Your task to perform on an android device: set default search engine in the chrome app Image 0: 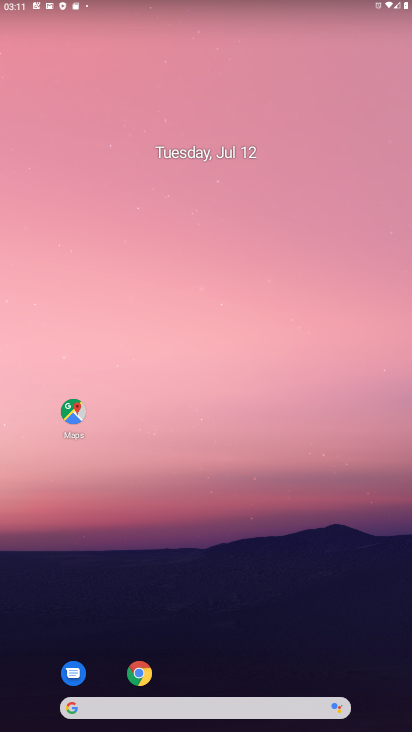
Step 0: press home button
Your task to perform on an android device: set default search engine in the chrome app Image 1: 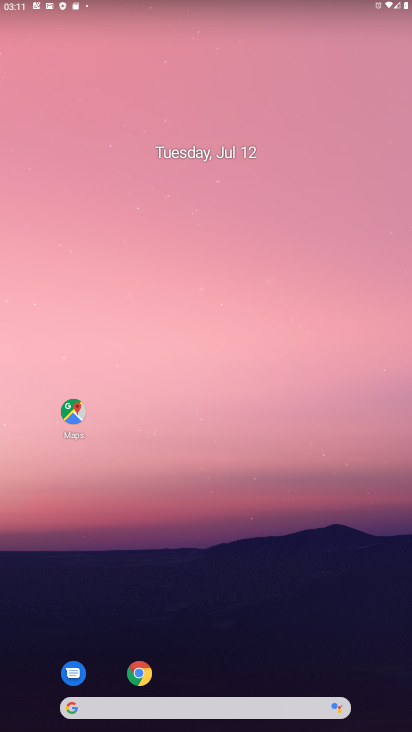
Step 1: drag from (266, 635) to (287, 138)
Your task to perform on an android device: set default search engine in the chrome app Image 2: 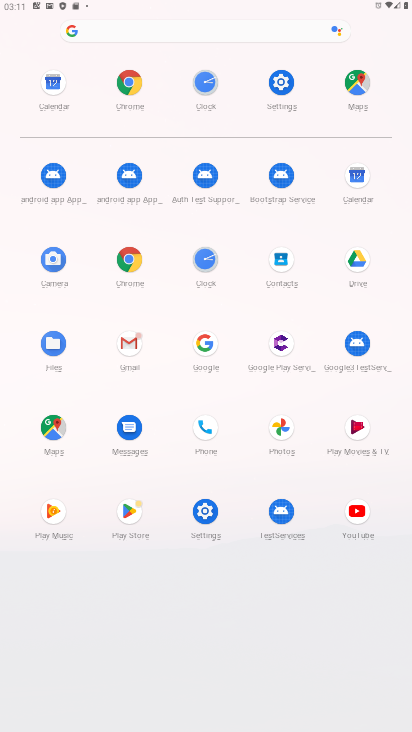
Step 2: click (124, 265)
Your task to perform on an android device: set default search engine in the chrome app Image 3: 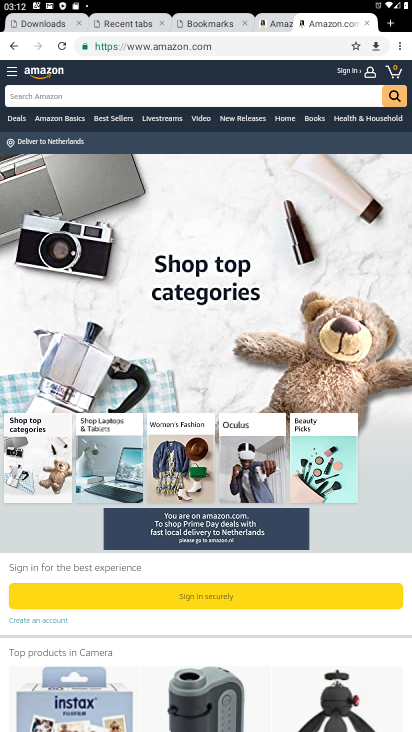
Step 3: drag from (394, 48) to (317, 310)
Your task to perform on an android device: set default search engine in the chrome app Image 4: 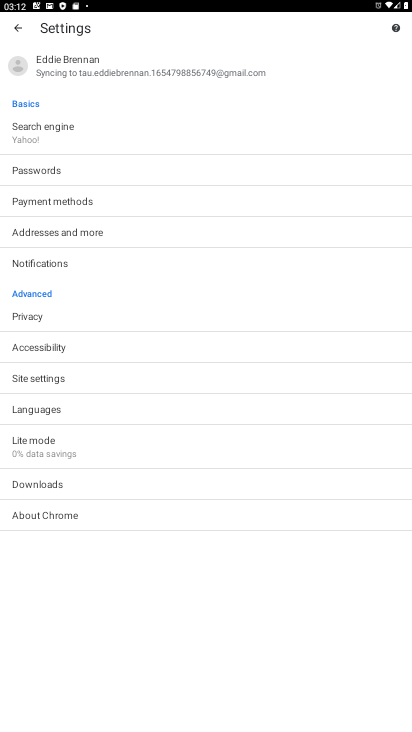
Step 4: click (48, 128)
Your task to perform on an android device: set default search engine in the chrome app Image 5: 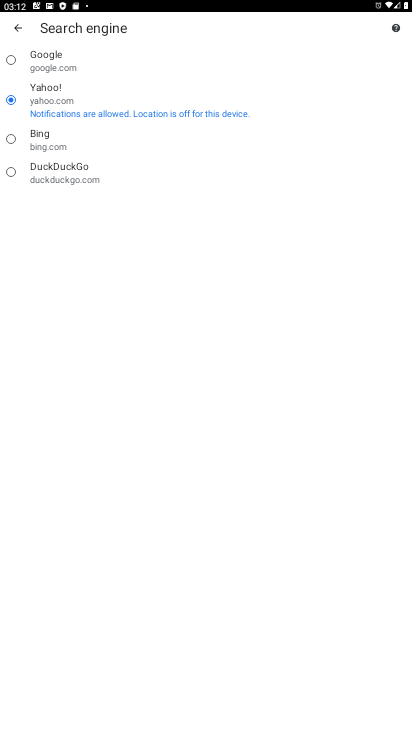
Step 5: click (10, 60)
Your task to perform on an android device: set default search engine in the chrome app Image 6: 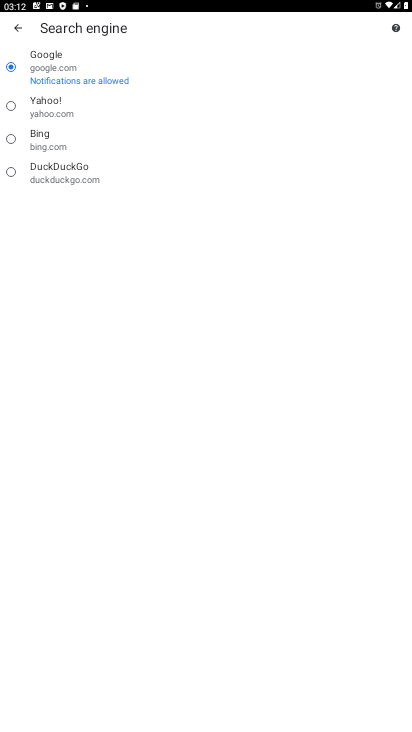
Step 6: task complete